Your task to perform on an android device: open a new tab in the chrome app Image 0: 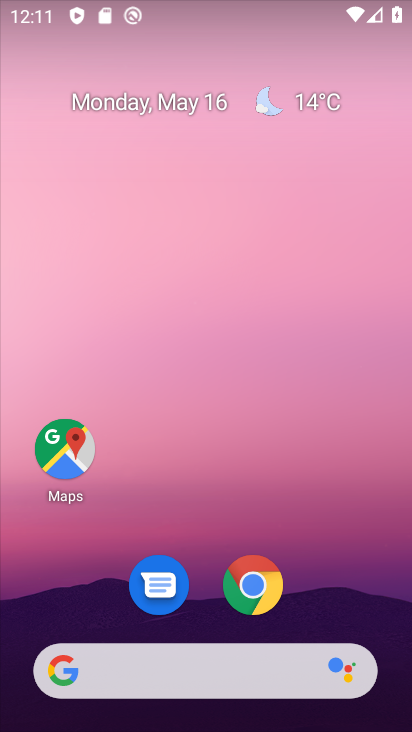
Step 0: click (255, 580)
Your task to perform on an android device: open a new tab in the chrome app Image 1: 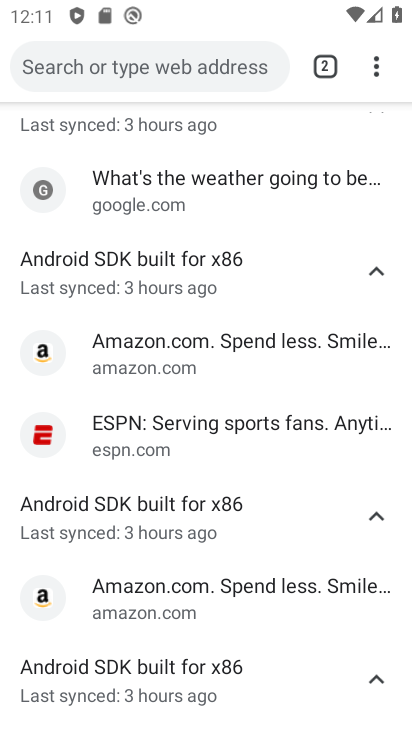
Step 1: click (378, 57)
Your task to perform on an android device: open a new tab in the chrome app Image 2: 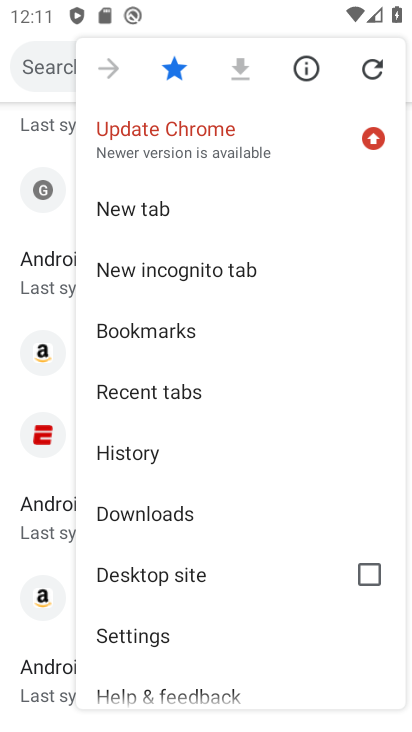
Step 2: click (220, 212)
Your task to perform on an android device: open a new tab in the chrome app Image 3: 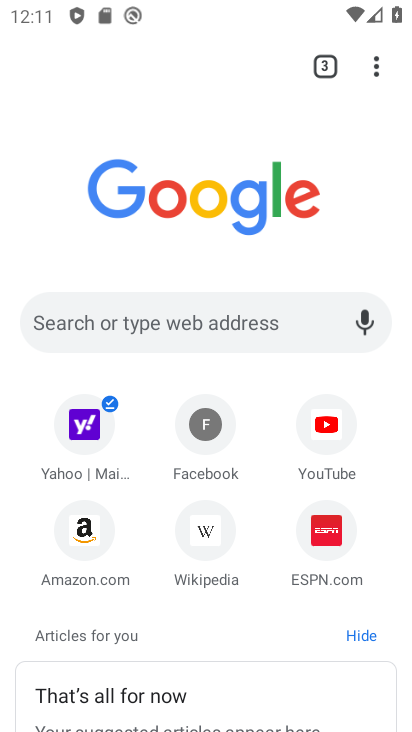
Step 3: task complete